Your task to perform on an android device: turn on notifications settings in the gmail app Image 0: 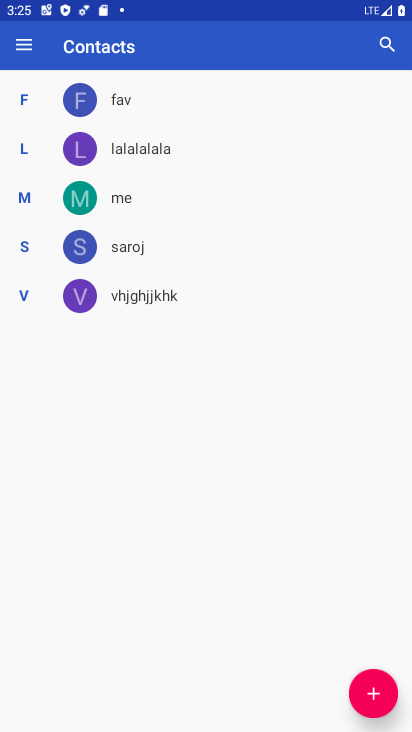
Step 0: press home button
Your task to perform on an android device: turn on notifications settings in the gmail app Image 1: 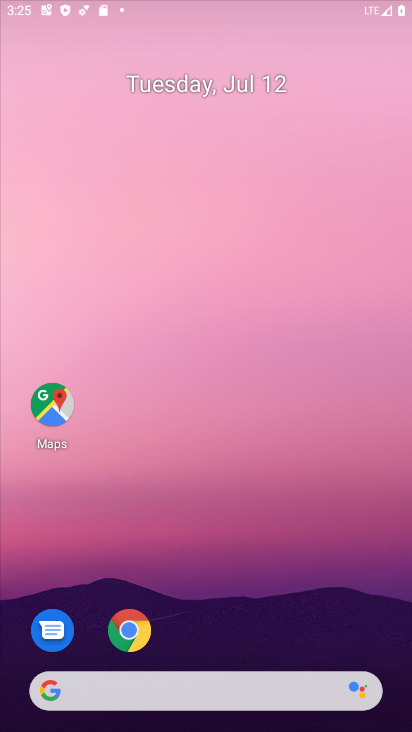
Step 1: drag from (300, 672) to (368, 13)
Your task to perform on an android device: turn on notifications settings in the gmail app Image 2: 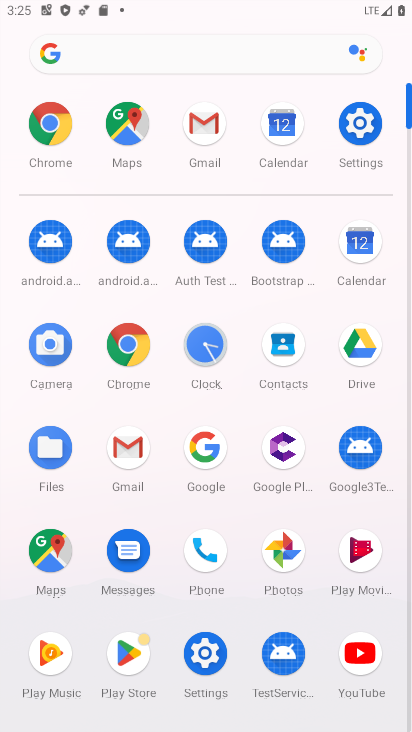
Step 2: click (134, 451)
Your task to perform on an android device: turn on notifications settings in the gmail app Image 3: 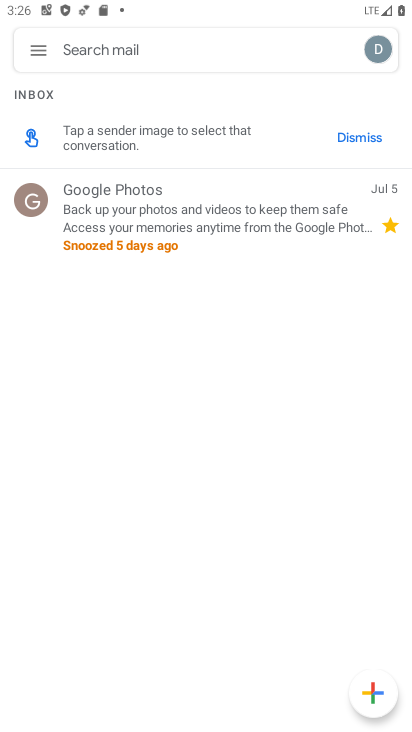
Step 3: click (43, 47)
Your task to perform on an android device: turn on notifications settings in the gmail app Image 4: 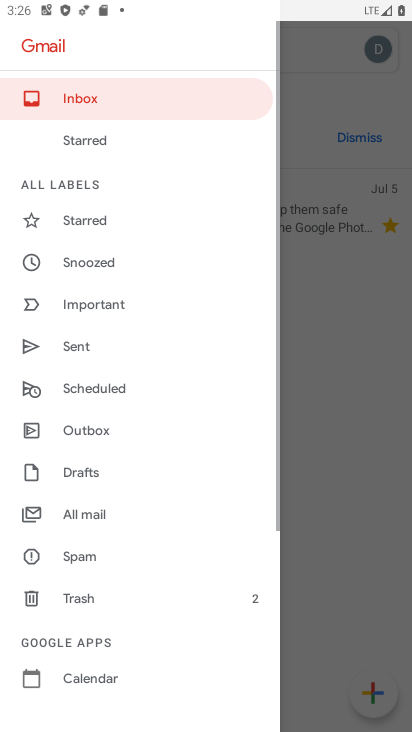
Step 4: drag from (124, 652) to (174, 149)
Your task to perform on an android device: turn on notifications settings in the gmail app Image 5: 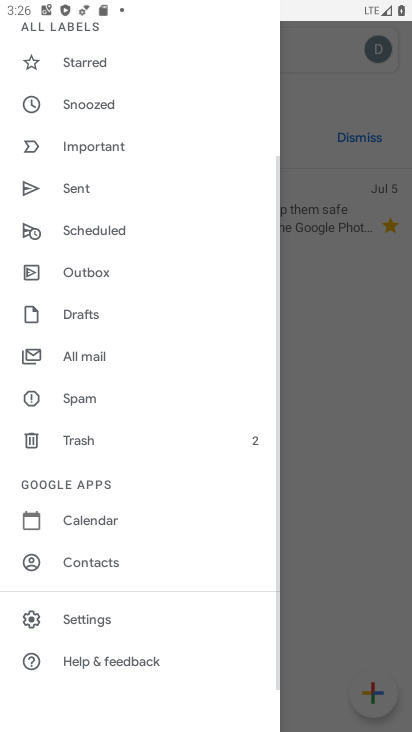
Step 5: click (112, 624)
Your task to perform on an android device: turn on notifications settings in the gmail app Image 6: 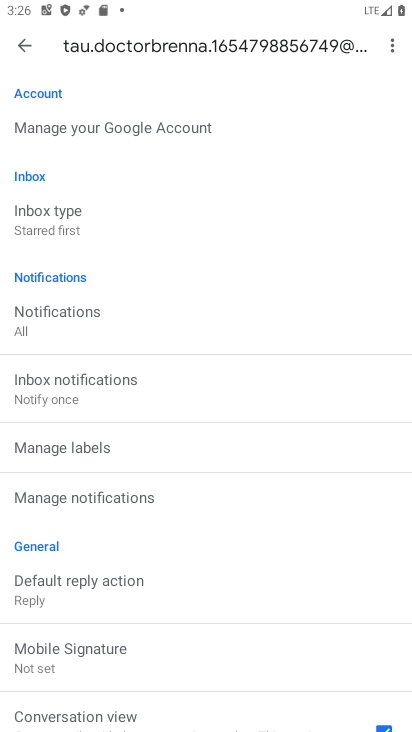
Step 6: click (116, 493)
Your task to perform on an android device: turn on notifications settings in the gmail app Image 7: 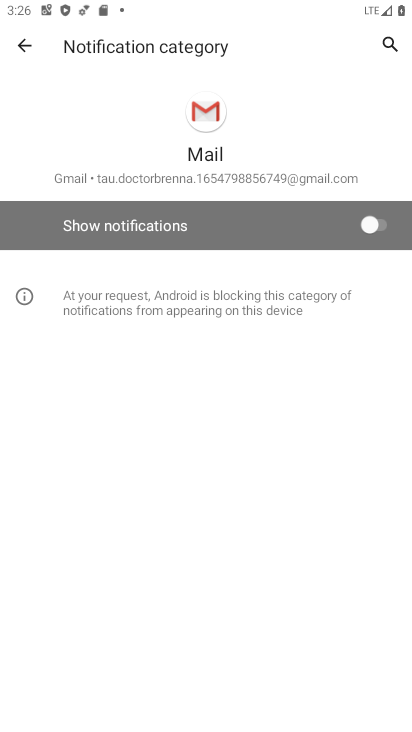
Step 7: click (374, 229)
Your task to perform on an android device: turn on notifications settings in the gmail app Image 8: 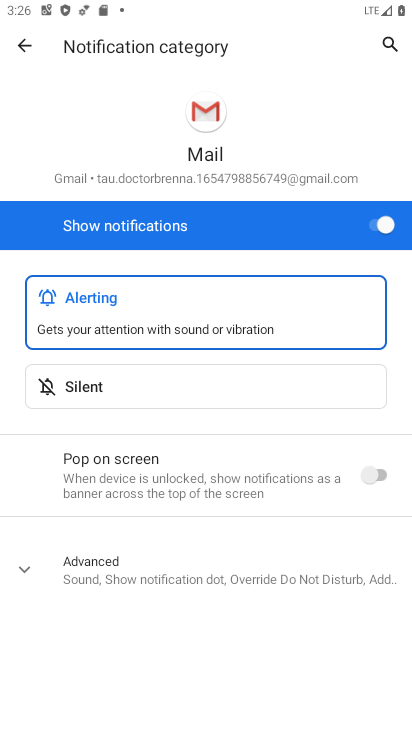
Step 8: task complete